Your task to perform on an android device: change the clock display to digital Image 0: 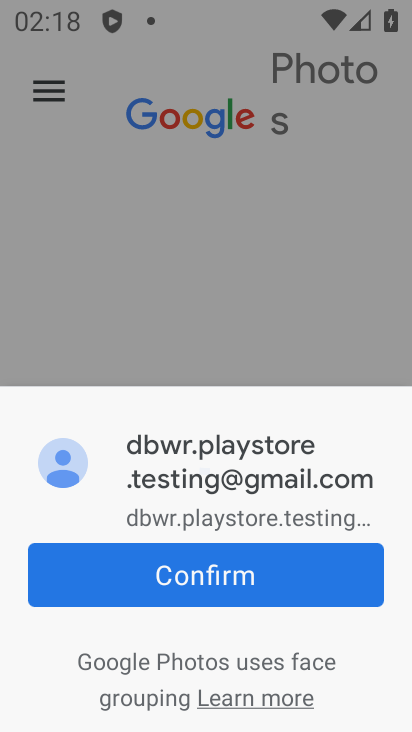
Step 0: press home button
Your task to perform on an android device: change the clock display to digital Image 1: 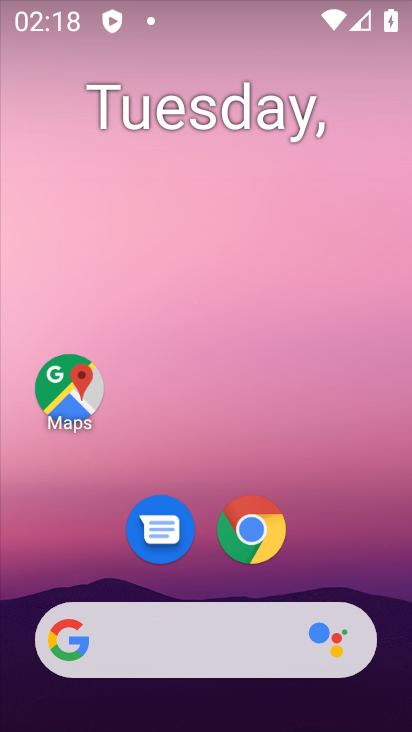
Step 1: drag from (321, 577) to (306, 61)
Your task to perform on an android device: change the clock display to digital Image 2: 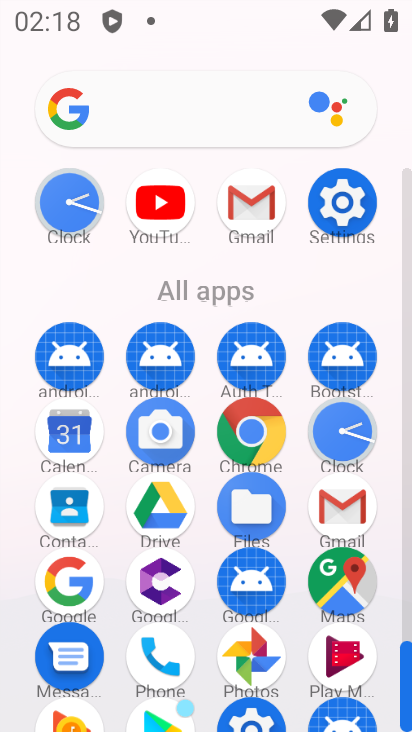
Step 2: click (353, 428)
Your task to perform on an android device: change the clock display to digital Image 3: 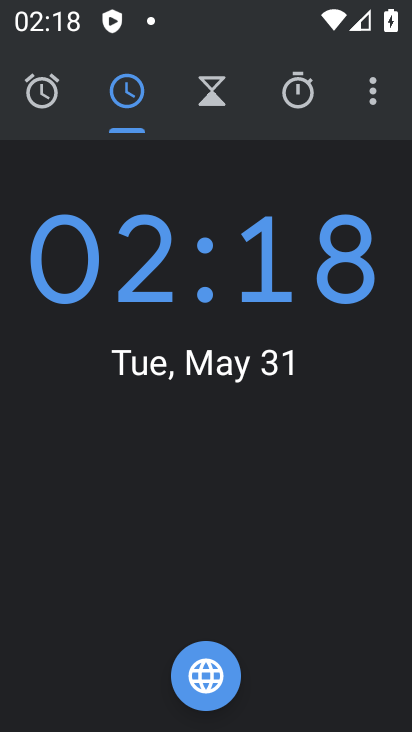
Step 3: click (368, 86)
Your task to perform on an android device: change the clock display to digital Image 4: 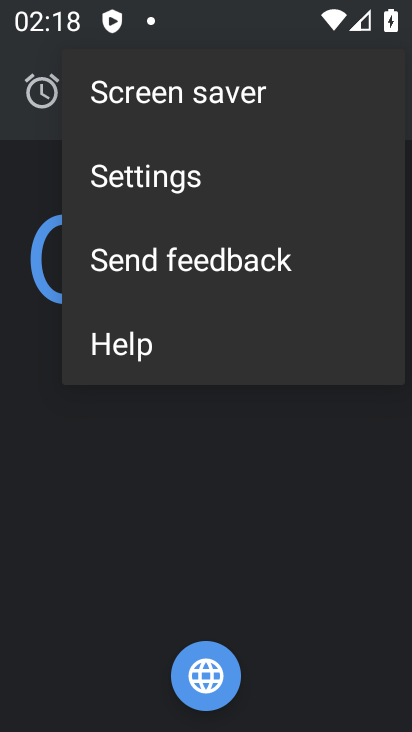
Step 4: click (200, 167)
Your task to perform on an android device: change the clock display to digital Image 5: 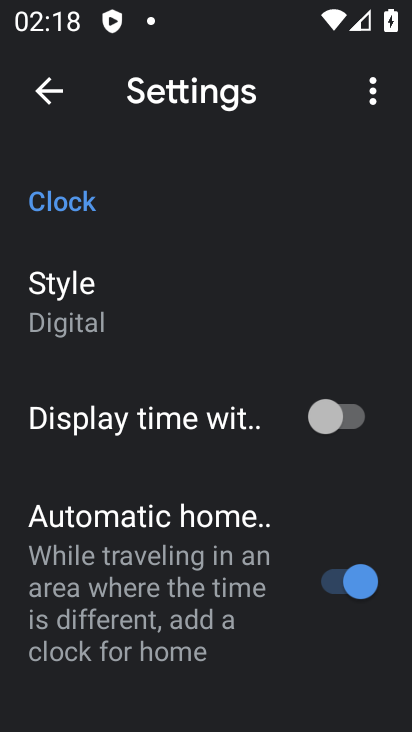
Step 5: click (79, 299)
Your task to perform on an android device: change the clock display to digital Image 6: 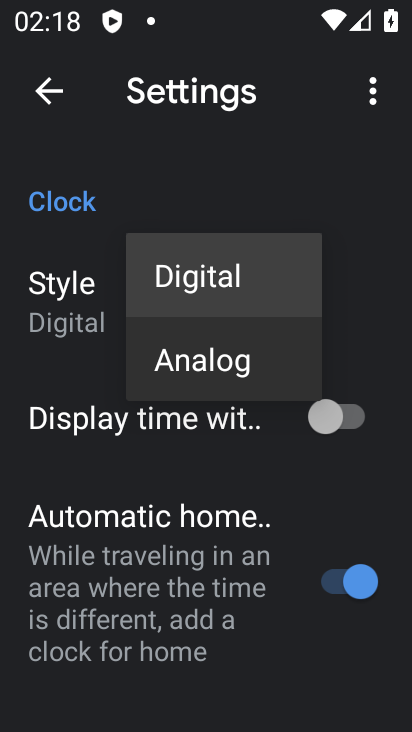
Step 6: click (173, 276)
Your task to perform on an android device: change the clock display to digital Image 7: 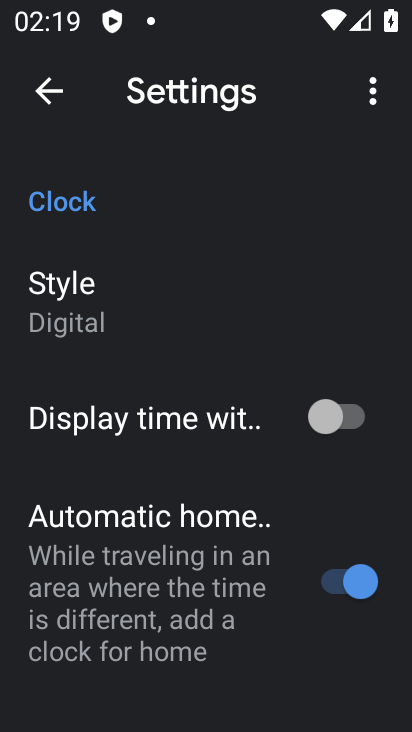
Step 7: task complete